Your task to perform on an android device: check google app version Image 0: 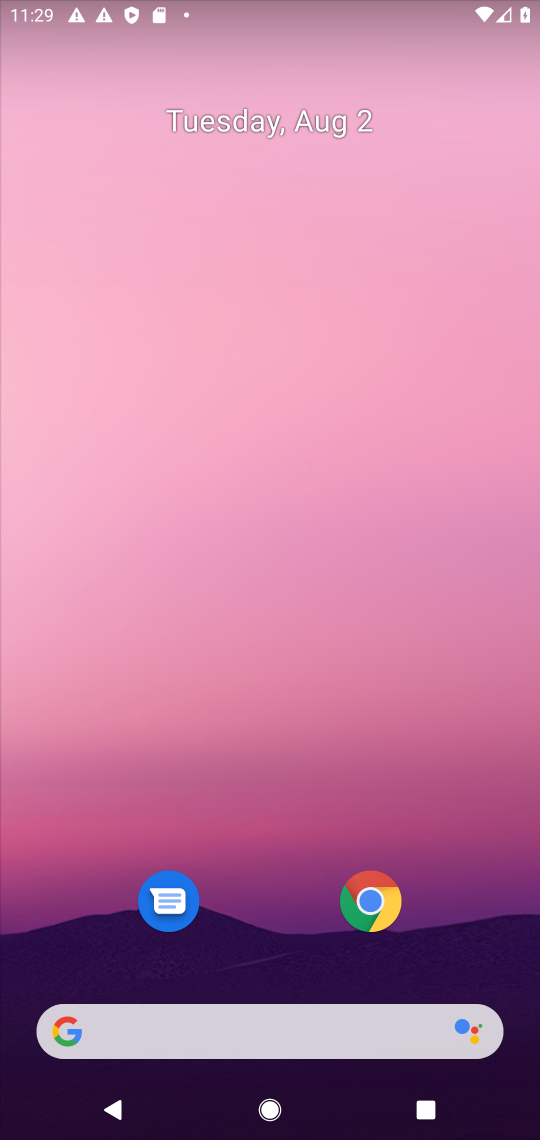
Step 0: drag from (527, 1028) to (484, 259)
Your task to perform on an android device: check google app version Image 1: 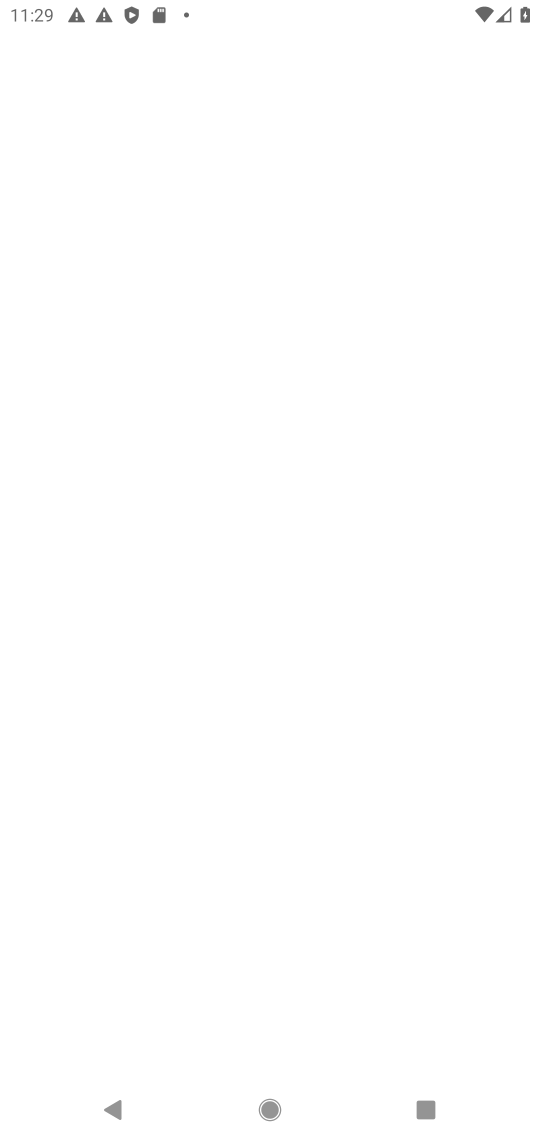
Step 1: press home button
Your task to perform on an android device: check google app version Image 2: 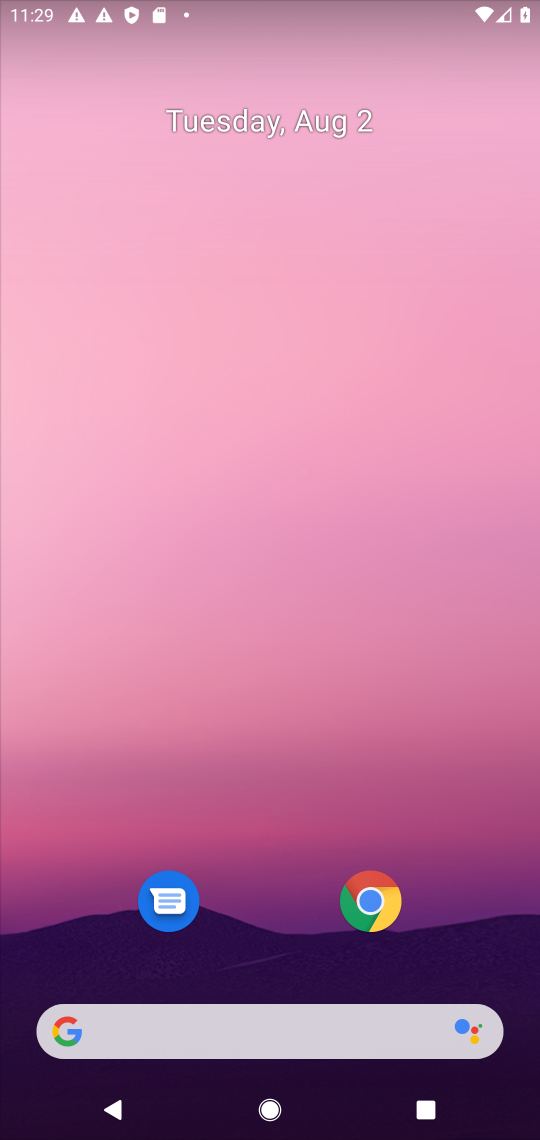
Step 2: drag from (500, 1133) to (301, 284)
Your task to perform on an android device: check google app version Image 3: 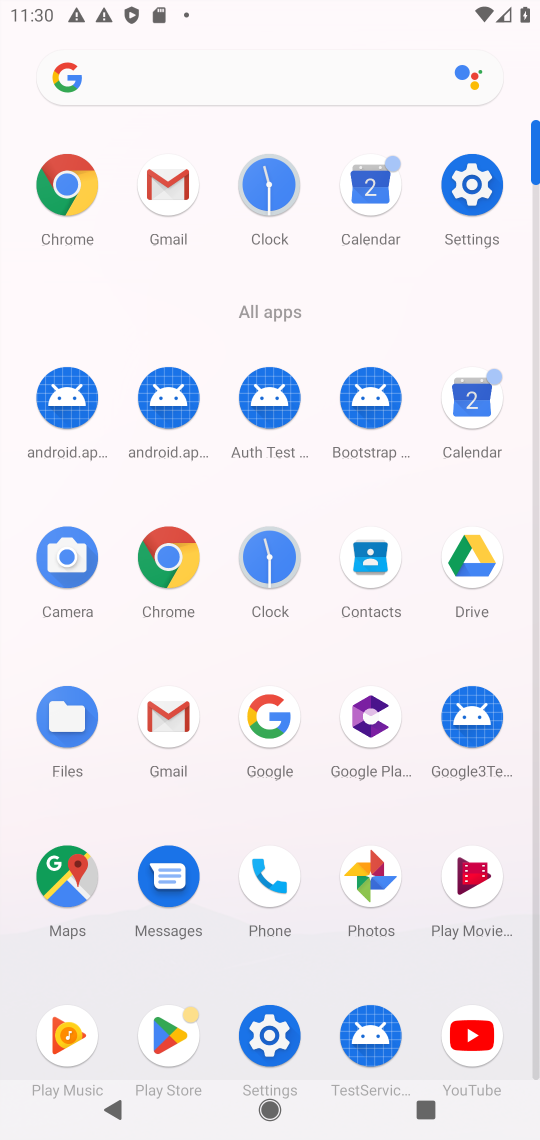
Step 3: click (258, 717)
Your task to perform on an android device: check google app version Image 4: 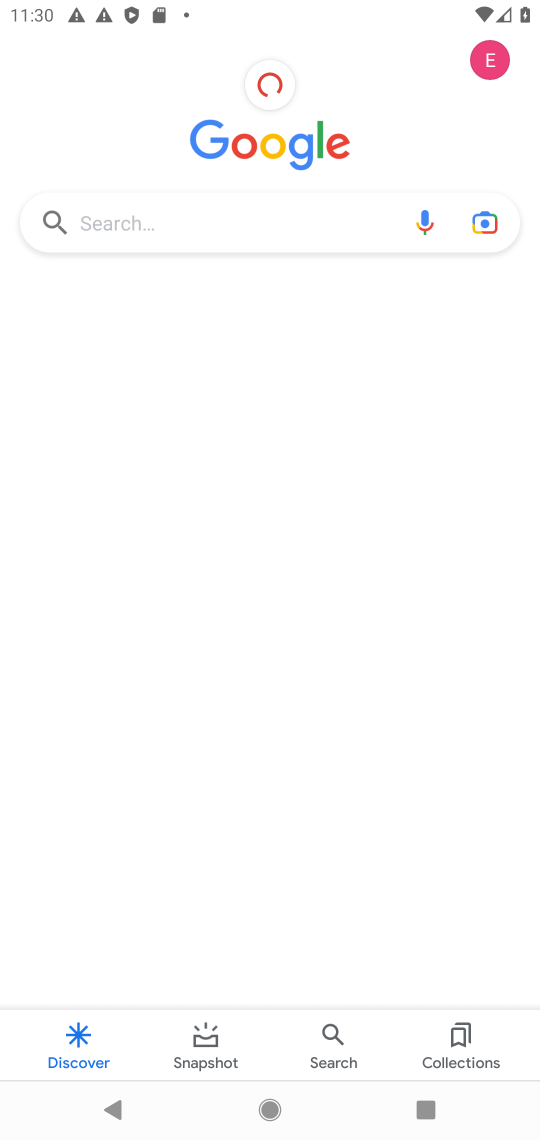
Step 4: click (449, 1059)
Your task to perform on an android device: check google app version Image 5: 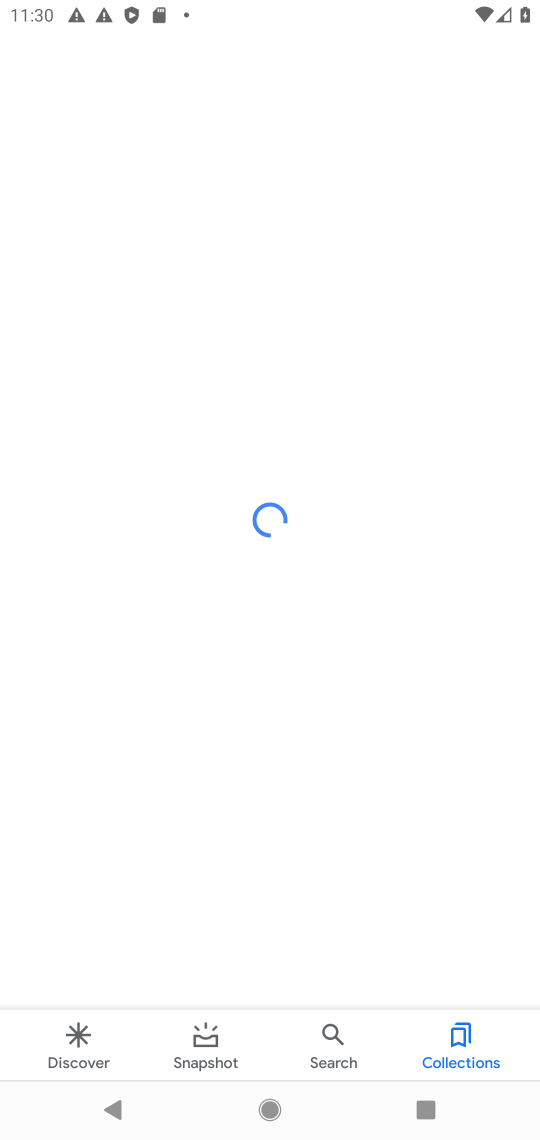
Step 5: task complete